Your task to perform on an android device: check the backup settings in the google photos Image 0: 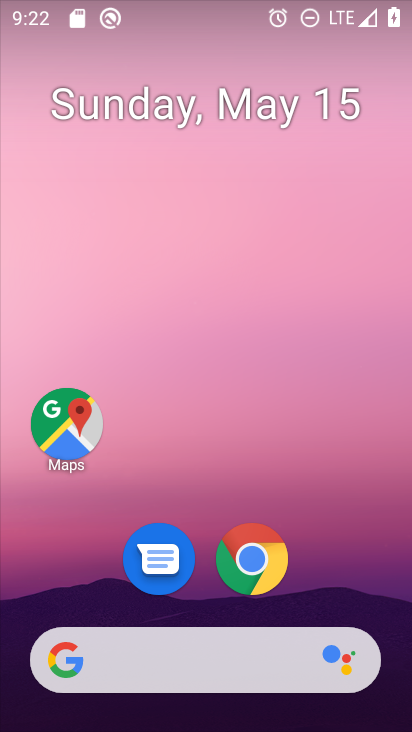
Step 0: drag from (331, 583) to (312, 90)
Your task to perform on an android device: check the backup settings in the google photos Image 1: 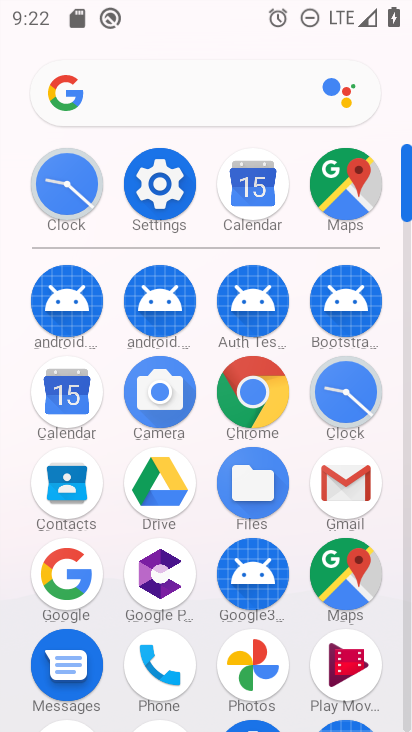
Step 1: click (249, 682)
Your task to perform on an android device: check the backup settings in the google photos Image 2: 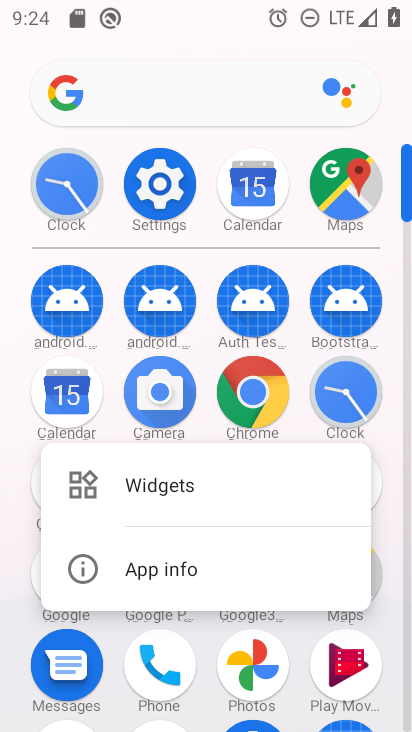
Step 2: click (257, 693)
Your task to perform on an android device: check the backup settings in the google photos Image 3: 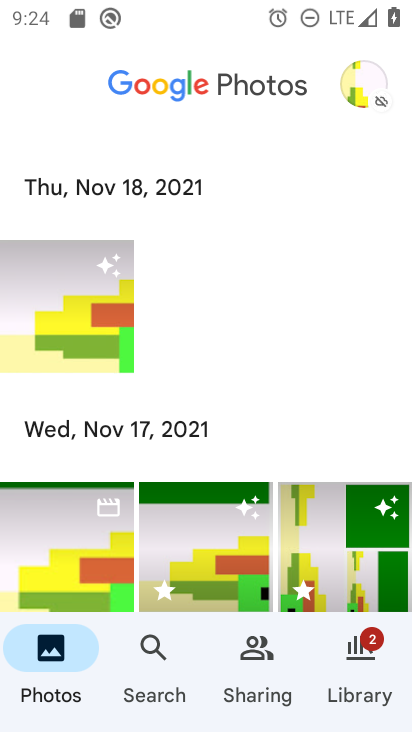
Step 3: click (346, 85)
Your task to perform on an android device: check the backup settings in the google photos Image 4: 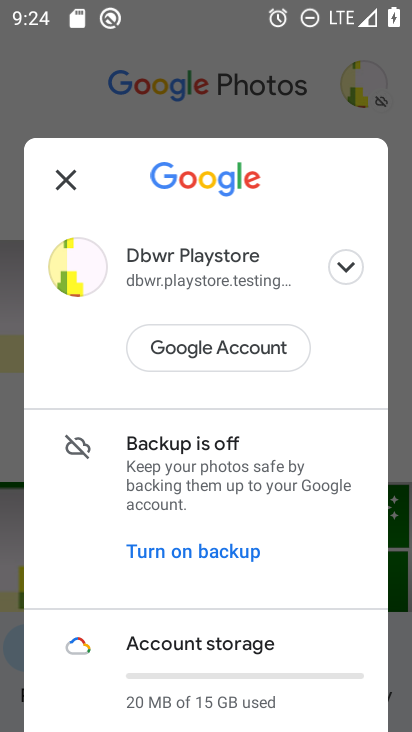
Step 4: click (212, 467)
Your task to perform on an android device: check the backup settings in the google photos Image 5: 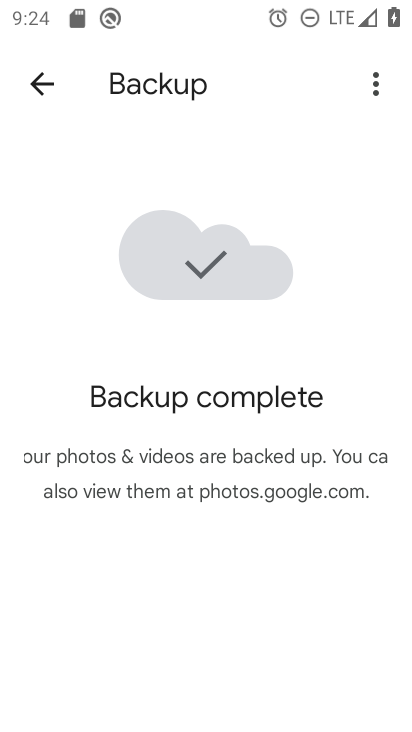
Step 5: task complete